Your task to perform on an android device: Go to internet settings Image 0: 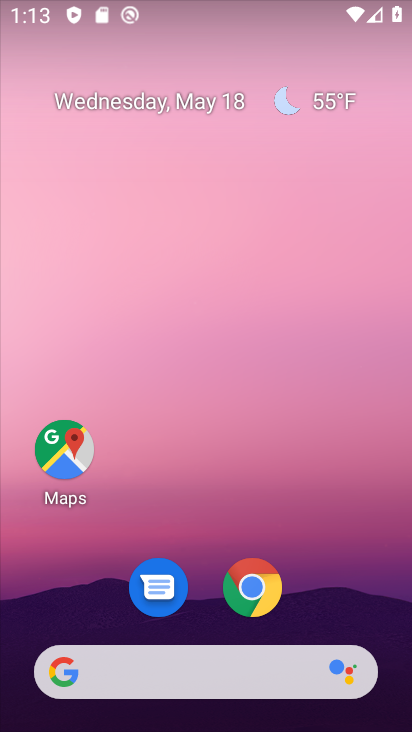
Step 0: drag from (202, 590) to (268, 66)
Your task to perform on an android device: Go to internet settings Image 1: 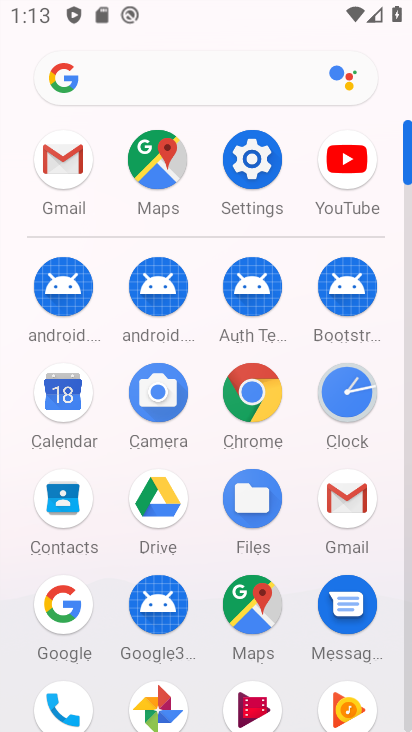
Step 1: click (267, 154)
Your task to perform on an android device: Go to internet settings Image 2: 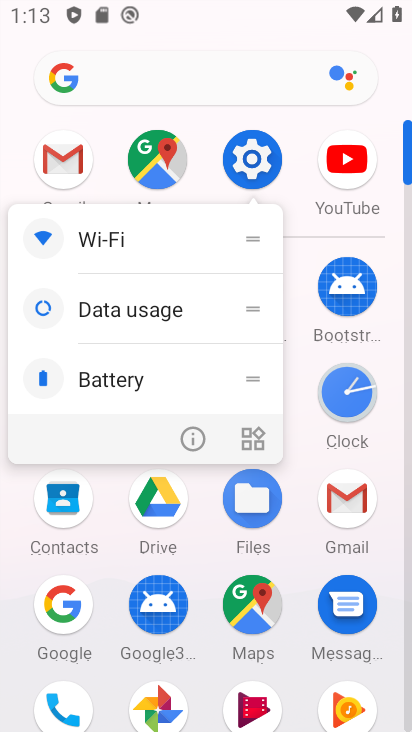
Step 2: click (260, 151)
Your task to perform on an android device: Go to internet settings Image 3: 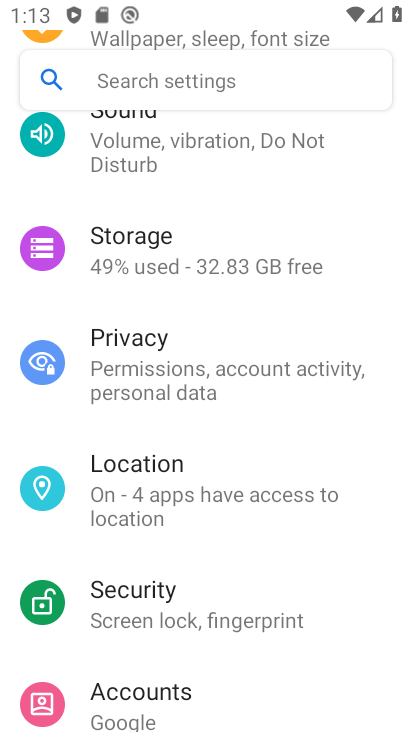
Step 3: drag from (244, 185) to (232, 726)
Your task to perform on an android device: Go to internet settings Image 4: 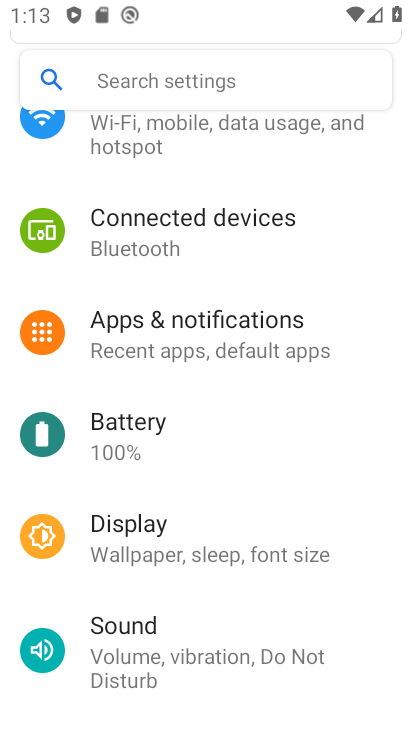
Step 4: drag from (241, 309) to (222, 727)
Your task to perform on an android device: Go to internet settings Image 5: 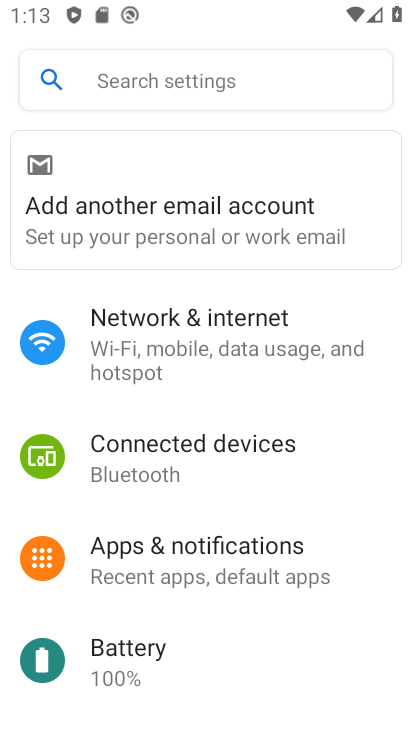
Step 5: click (184, 349)
Your task to perform on an android device: Go to internet settings Image 6: 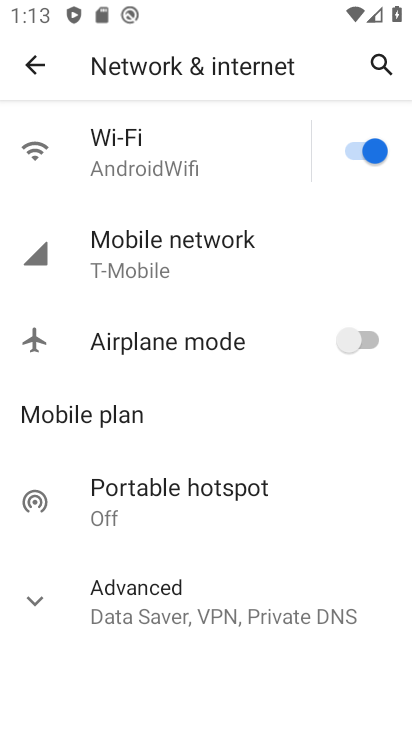
Step 6: task complete